Your task to perform on an android device: turn off sleep mode Image 0: 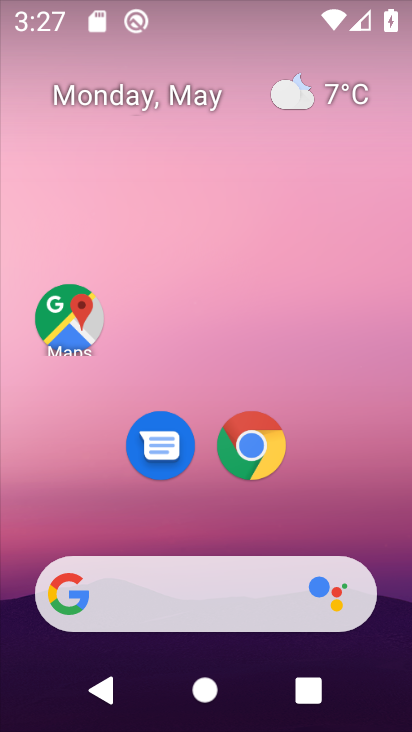
Step 0: drag from (347, 478) to (309, 36)
Your task to perform on an android device: turn off sleep mode Image 1: 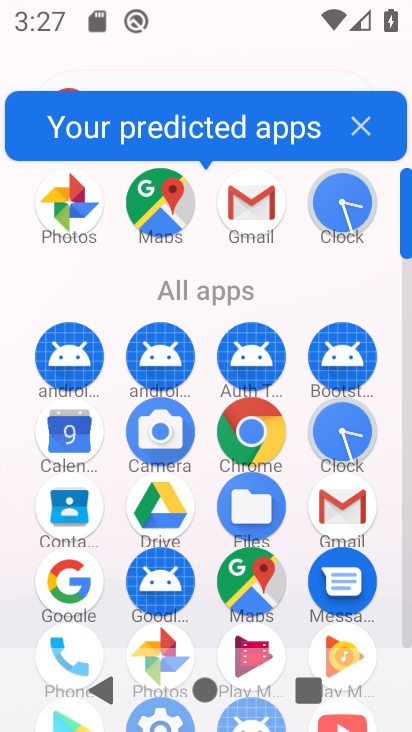
Step 1: drag from (199, 174) to (141, 4)
Your task to perform on an android device: turn off sleep mode Image 2: 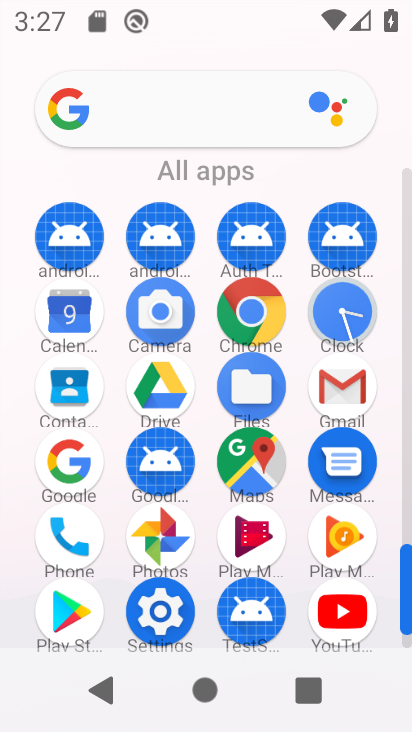
Step 2: click (180, 617)
Your task to perform on an android device: turn off sleep mode Image 3: 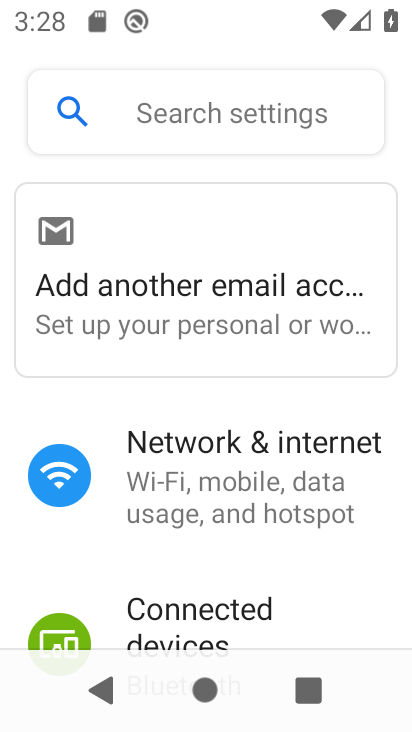
Step 3: drag from (267, 590) to (204, 192)
Your task to perform on an android device: turn off sleep mode Image 4: 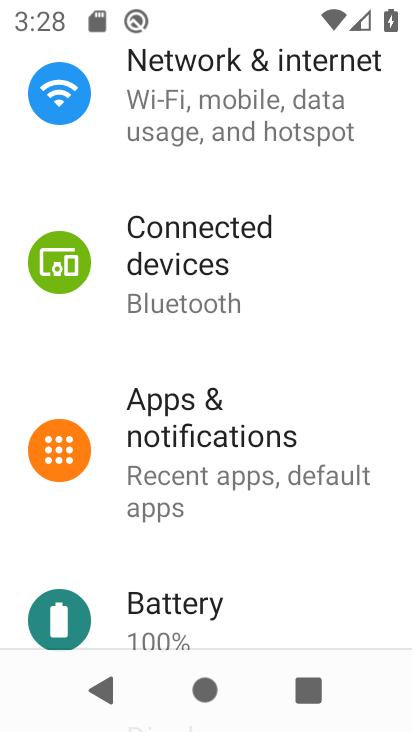
Step 4: drag from (212, 578) to (198, 319)
Your task to perform on an android device: turn off sleep mode Image 5: 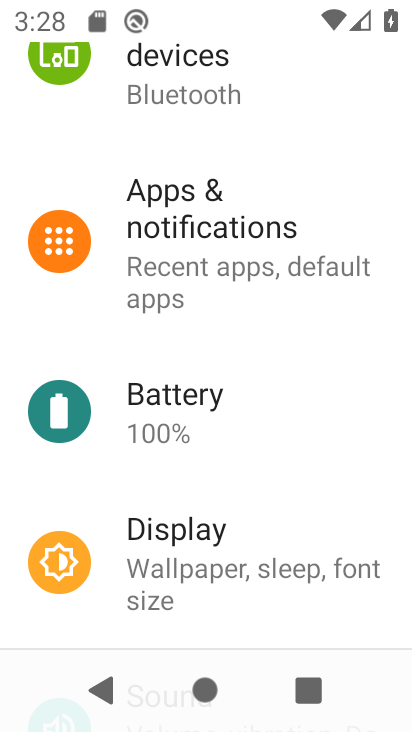
Step 5: click (175, 596)
Your task to perform on an android device: turn off sleep mode Image 6: 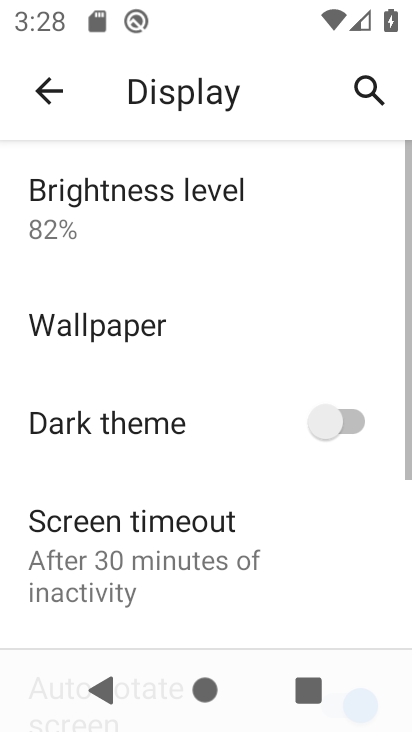
Step 6: task complete